Your task to perform on an android device: What's the news about the US president? Image 0: 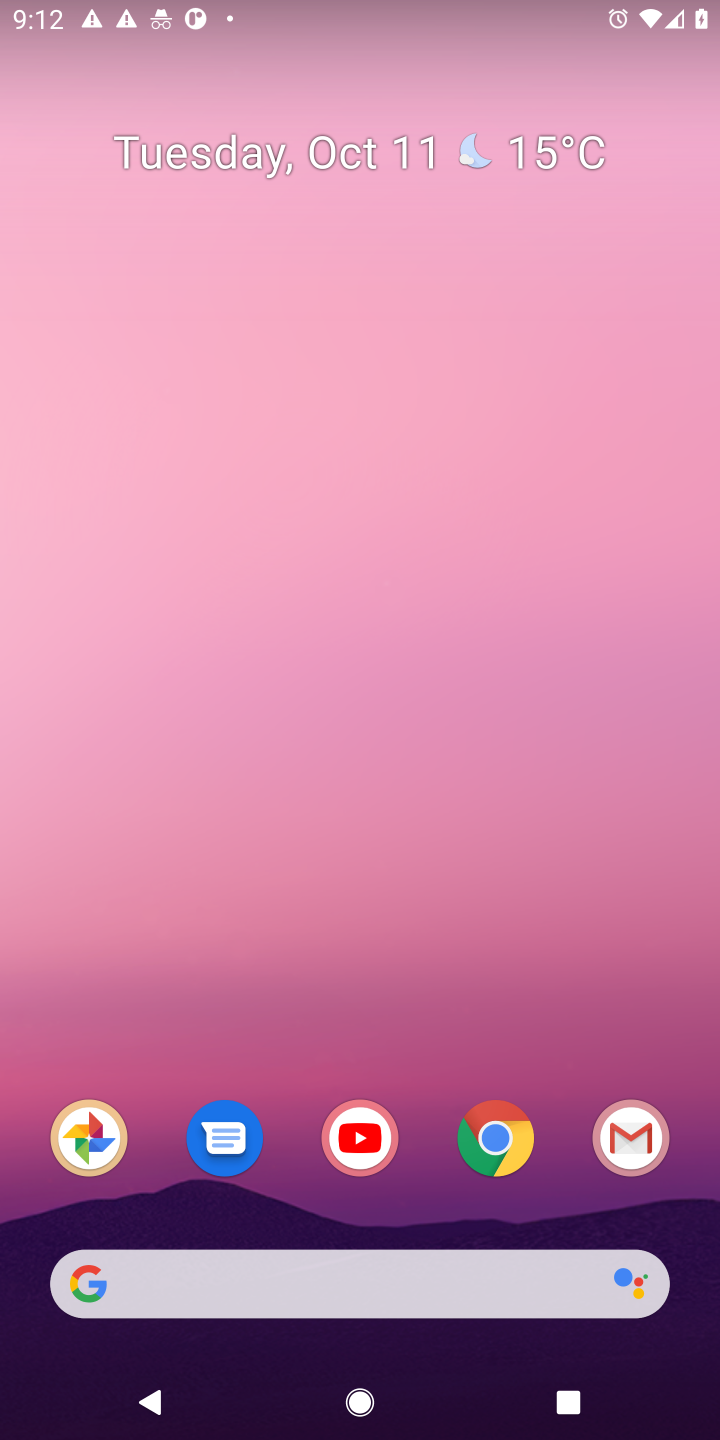
Step 0: click (296, 1266)
Your task to perform on an android device: What's the news about the US president? Image 1: 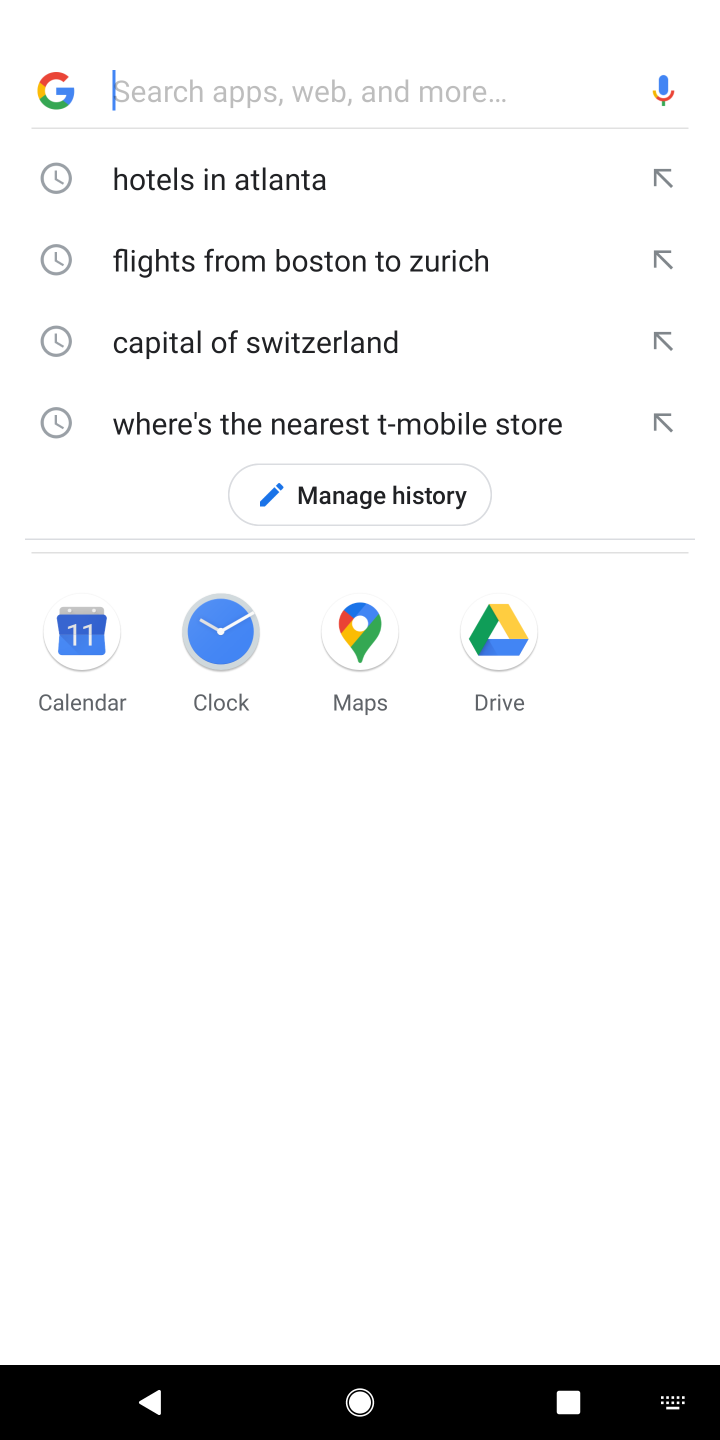
Step 1: type "What's the news about the US president?"
Your task to perform on an android device: What's the news about the US president? Image 2: 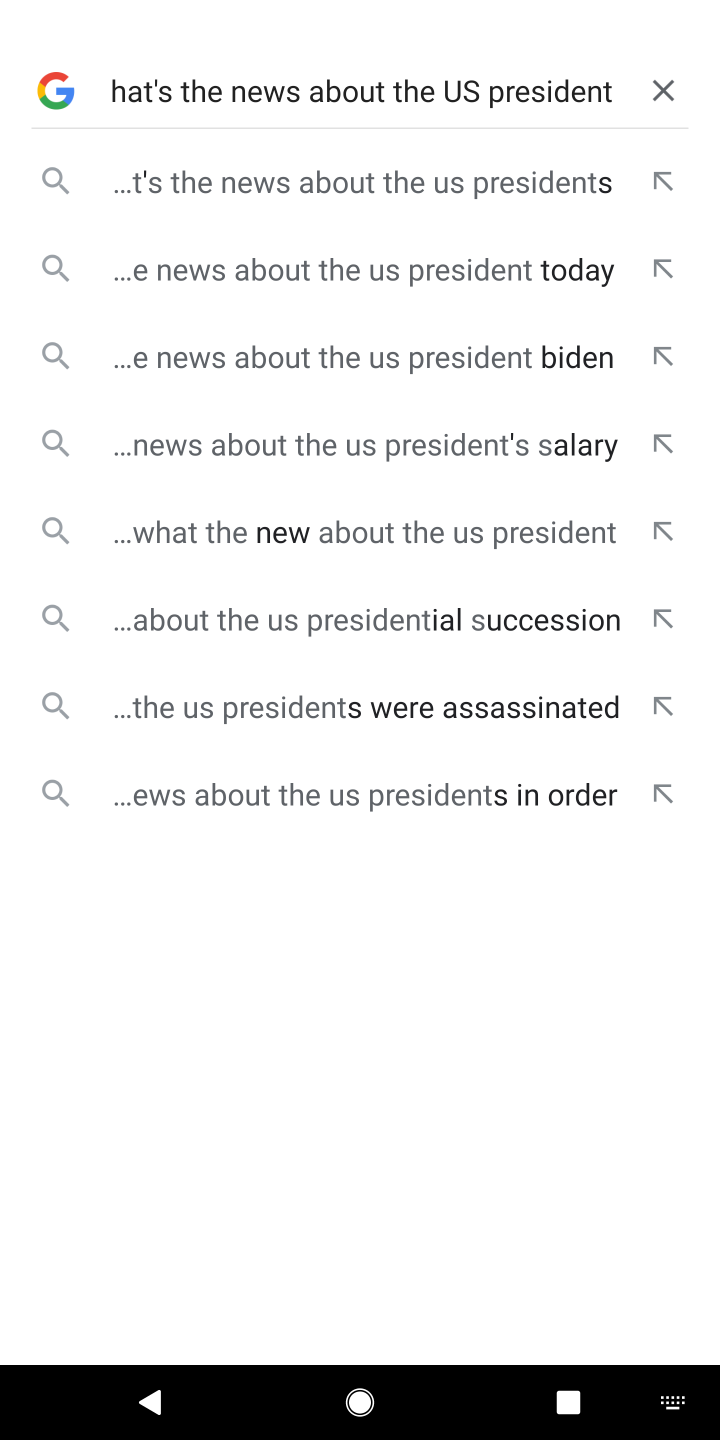
Step 2: click (366, 178)
Your task to perform on an android device: What's the news about the US president? Image 3: 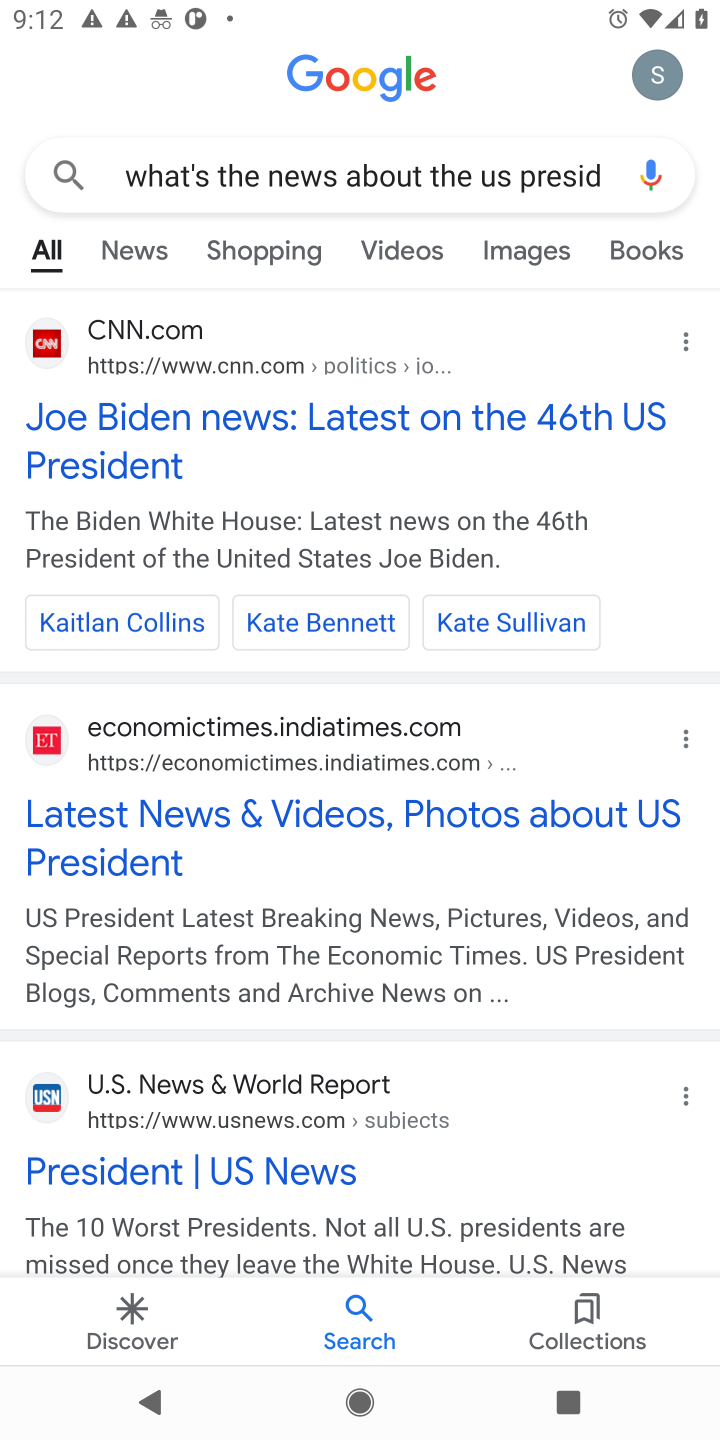
Step 3: click (279, 420)
Your task to perform on an android device: What's the news about the US president? Image 4: 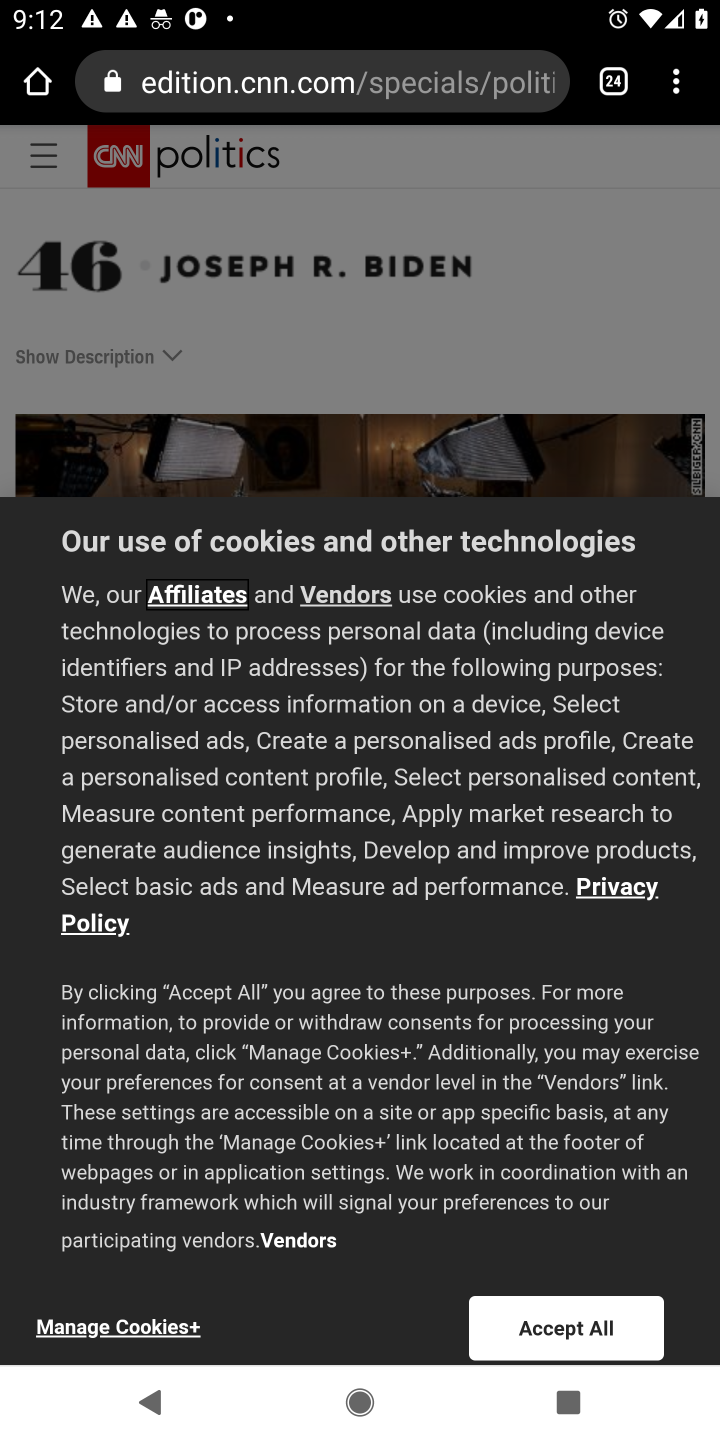
Step 4: drag from (458, 1052) to (398, 760)
Your task to perform on an android device: What's the news about the US president? Image 5: 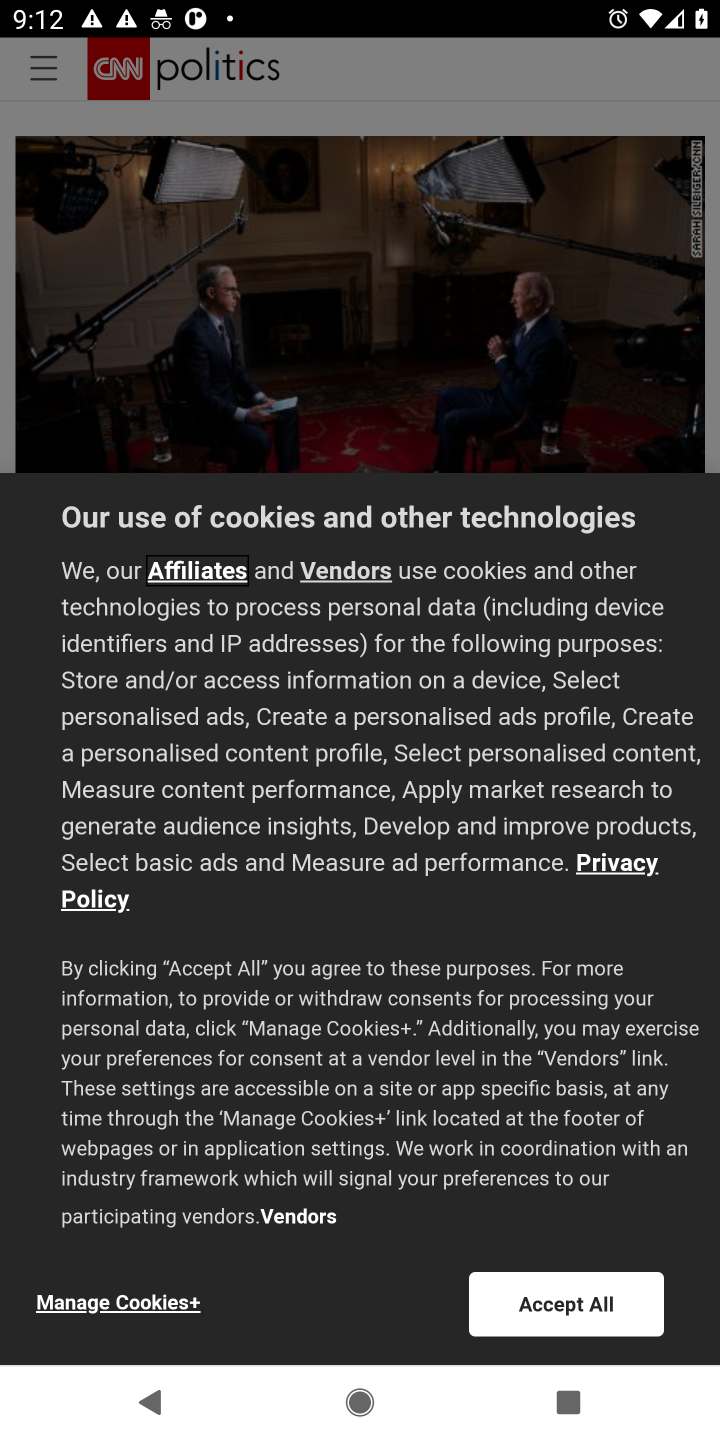
Step 5: click (537, 1307)
Your task to perform on an android device: What's the news about the US president? Image 6: 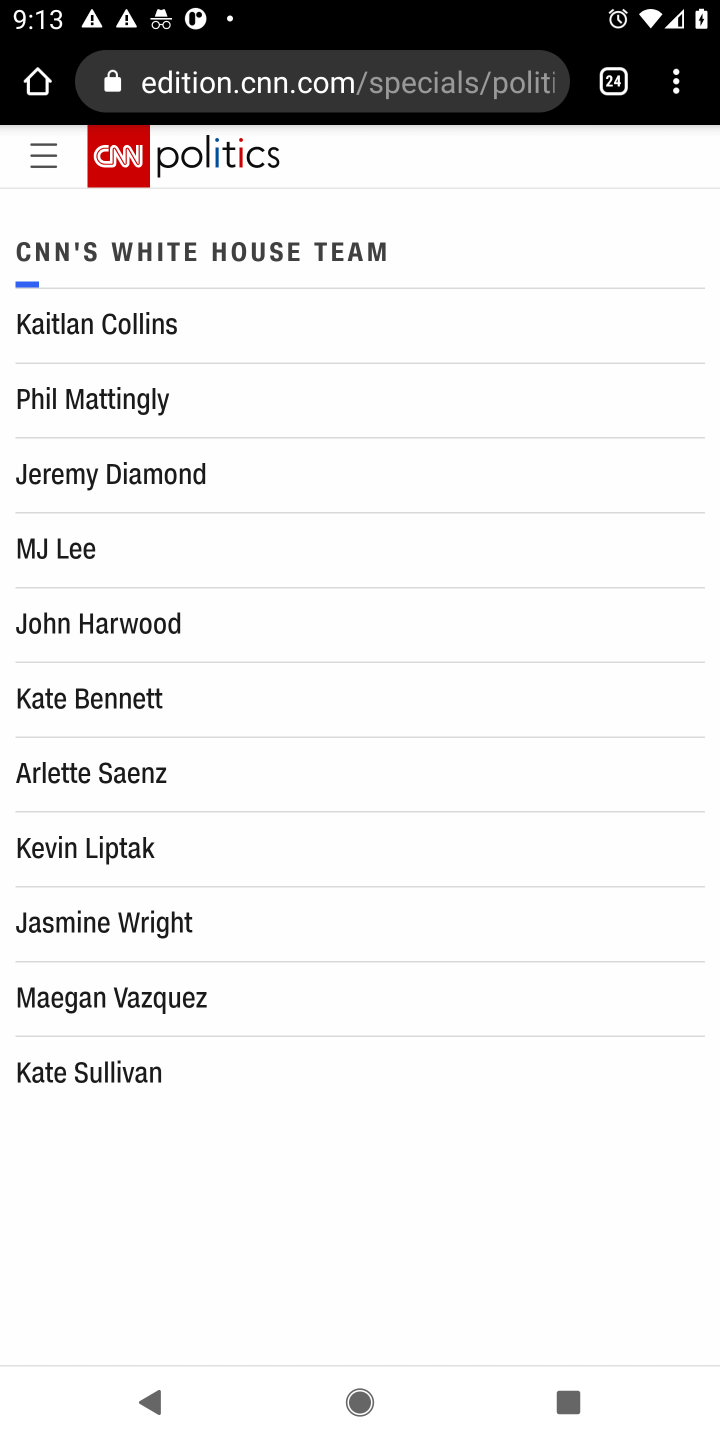
Step 6: task complete